Your task to perform on an android device: turn off location Image 0: 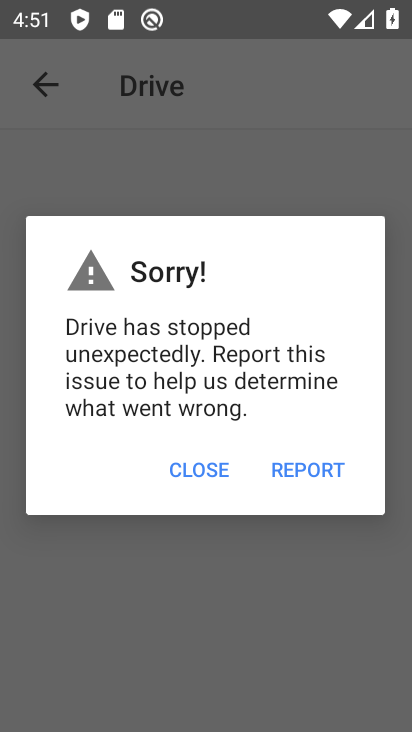
Step 0: press home button
Your task to perform on an android device: turn off location Image 1: 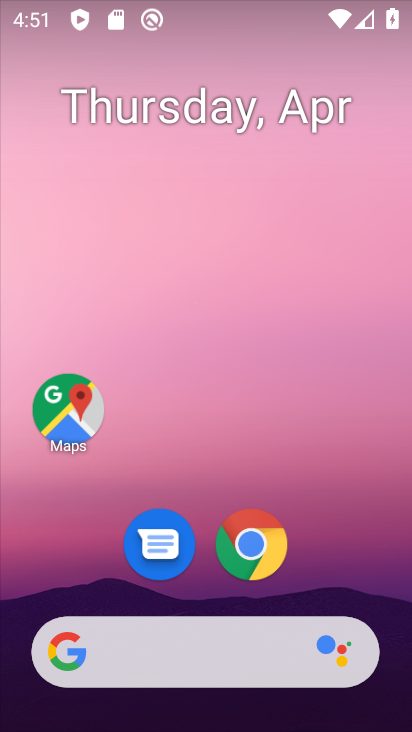
Step 1: drag from (334, 543) to (265, 62)
Your task to perform on an android device: turn off location Image 2: 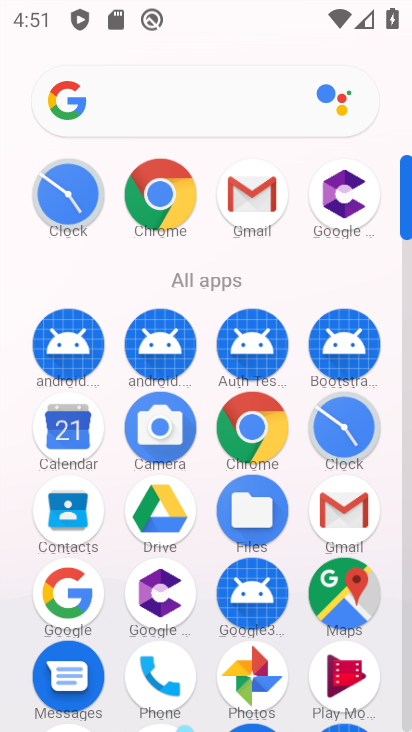
Step 2: click (406, 315)
Your task to perform on an android device: turn off location Image 3: 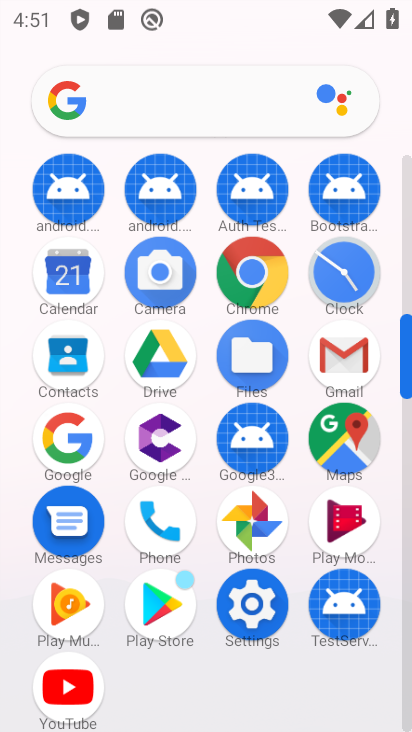
Step 3: click (247, 602)
Your task to perform on an android device: turn off location Image 4: 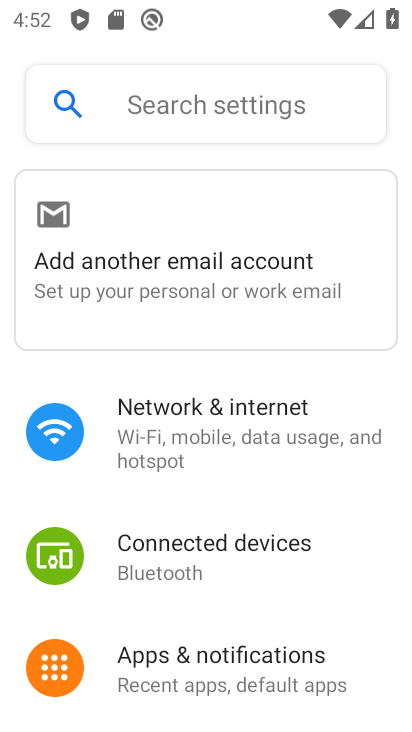
Step 4: drag from (209, 635) to (243, 335)
Your task to perform on an android device: turn off location Image 5: 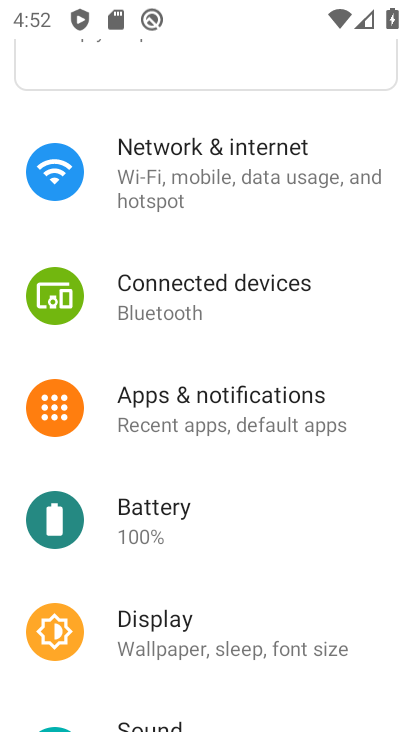
Step 5: drag from (275, 681) to (275, 566)
Your task to perform on an android device: turn off location Image 6: 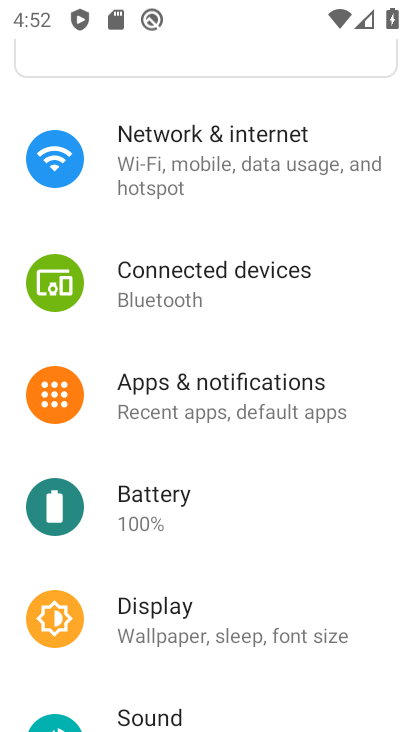
Step 6: drag from (257, 589) to (257, 503)
Your task to perform on an android device: turn off location Image 7: 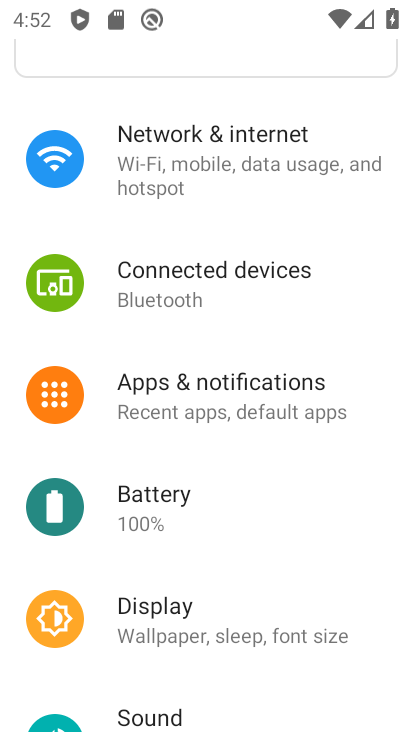
Step 7: drag from (322, 663) to (289, 318)
Your task to perform on an android device: turn off location Image 8: 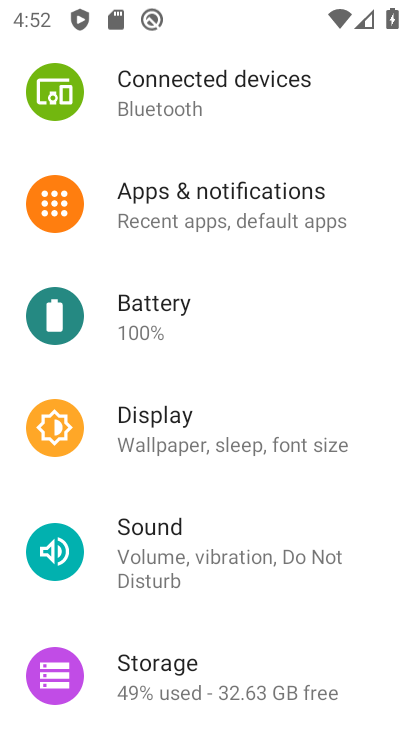
Step 8: drag from (245, 663) to (233, 113)
Your task to perform on an android device: turn off location Image 9: 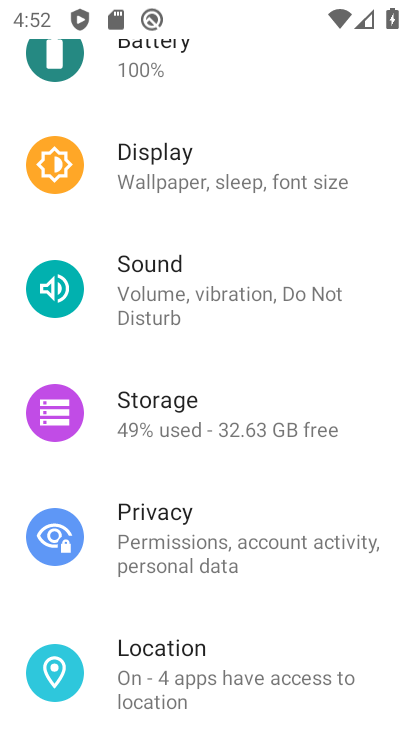
Step 9: click (157, 652)
Your task to perform on an android device: turn off location Image 10: 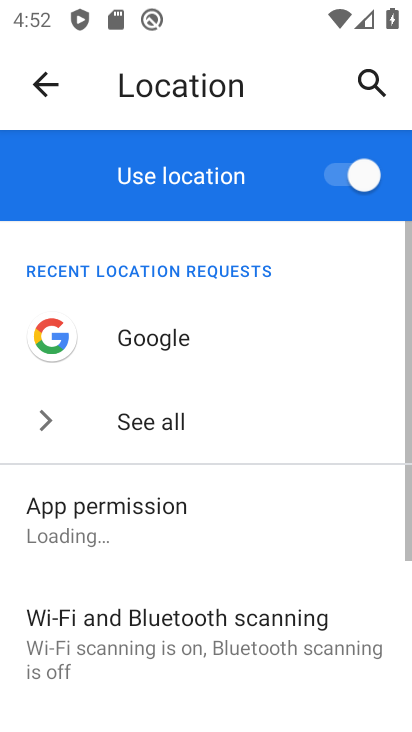
Step 10: click (342, 169)
Your task to perform on an android device: turn off location Image 11: 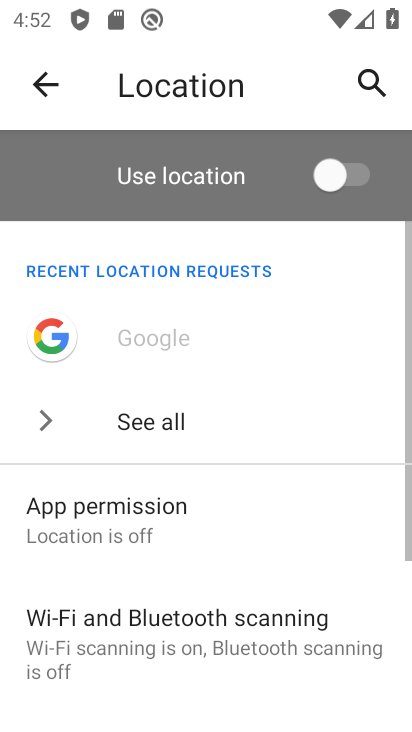
Step 11: task complete